Your task to perform on an android device: Go to ESPN.com Image 0: 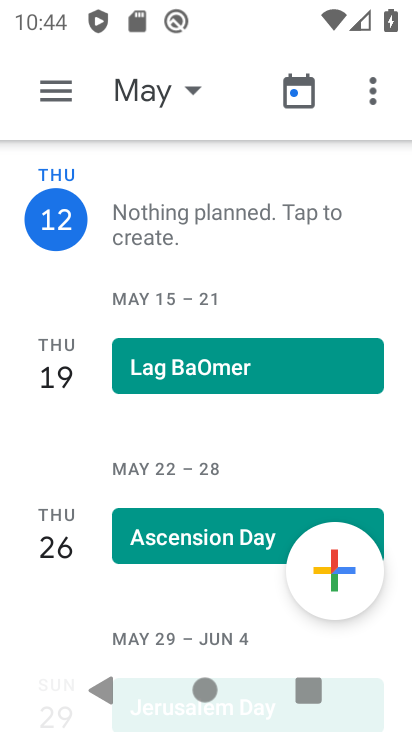
Step 0: press home button
Your task to perform on an android device: Go to ESPN.com Image 1: 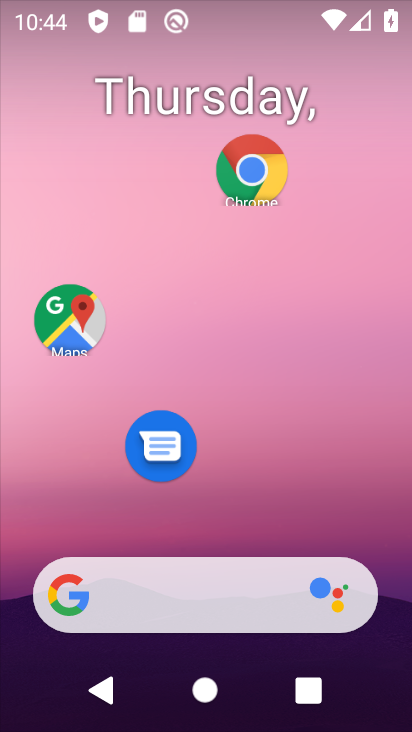
Step 1: click (258, 159)
Your task to perform on an android device: Go to ESPN.com Image 2: 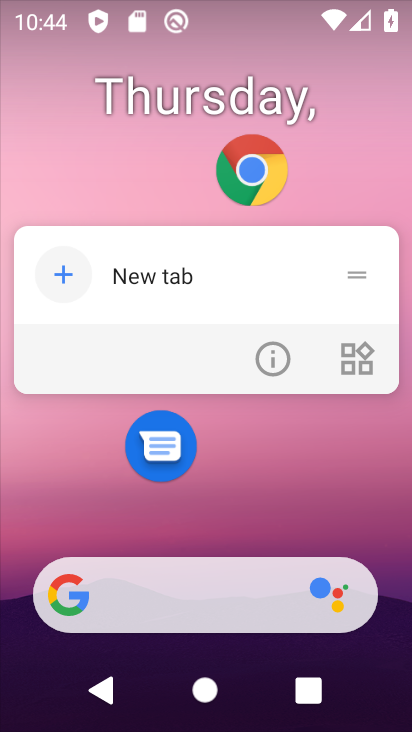
Step 2: click (242, 179)
Your task to perform on an android device: Go to ESPN.com Image 3: 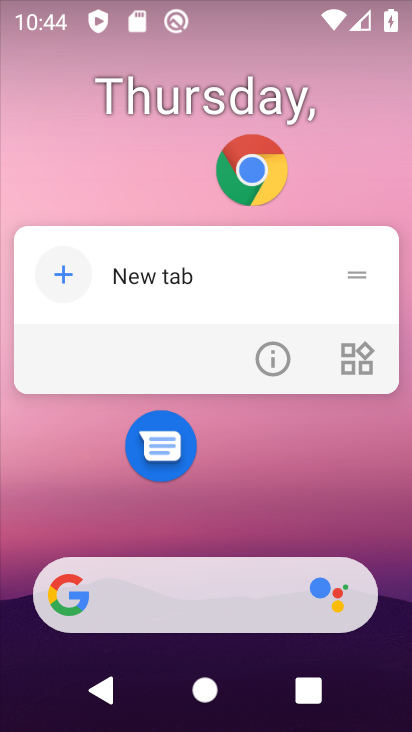
Step 3: click (252, 174)
Your task to perform on an android device: Go to ESPN.com Image 4: 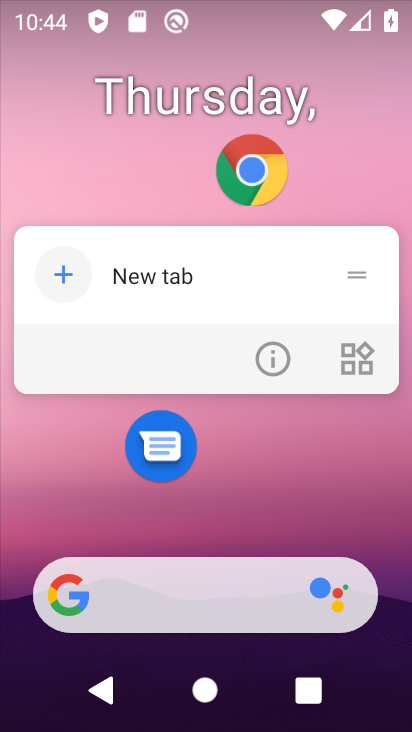
Step 4: click (257, 183)
Your task to perform on an android device: Go to ESPN.com Image 5: 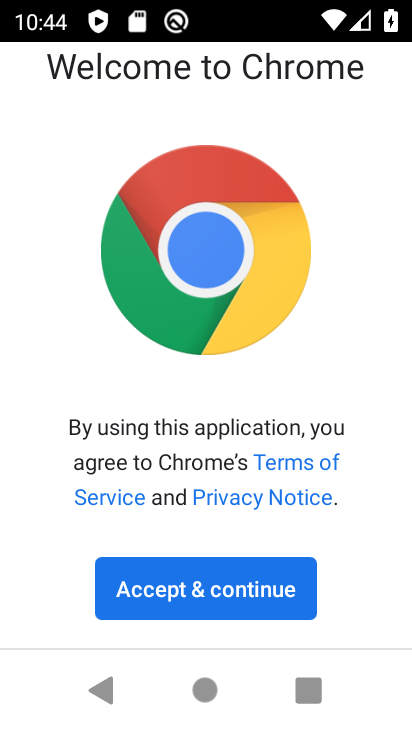
Step 5: click (257, 582)
Your task to perform on an android device: Go to ESPN.com Image 6: 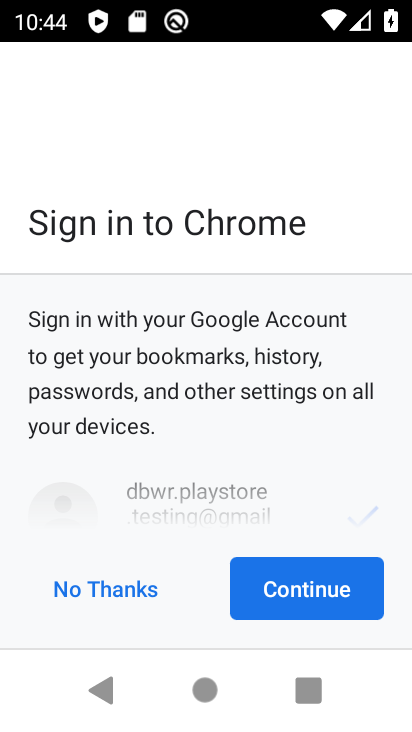
Step 6: click (276, 592)
Your task to perform on an android device: Go to ESPN.com Image 7: 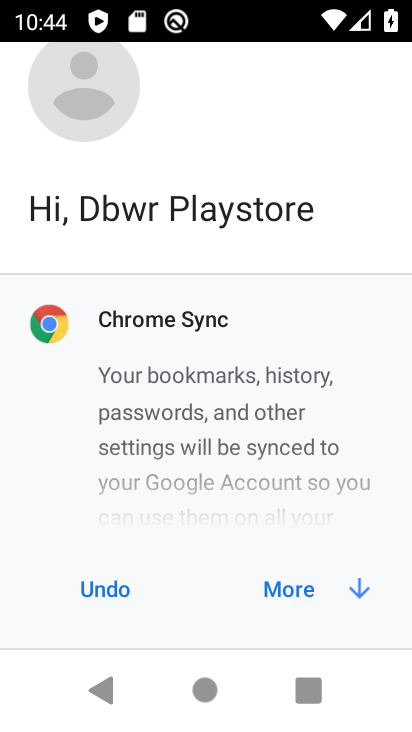
Step 7: click (276, 592)
Your task to perform on an android device: Go to ESPN.com Image 8: 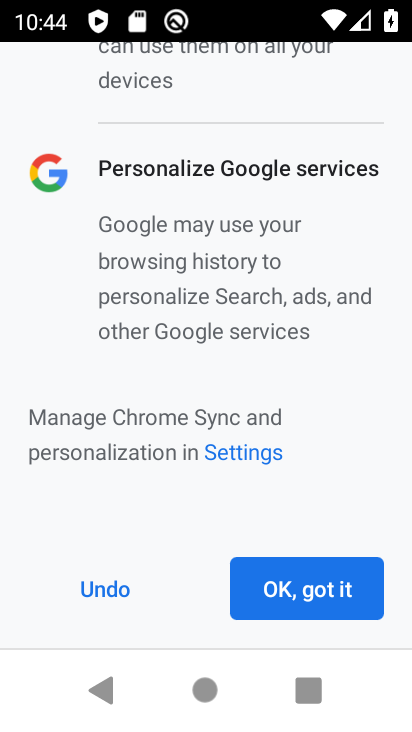
Step 8: click (276, 592)
Your task to perform on an android device: Go to ESPN.com Image 9: 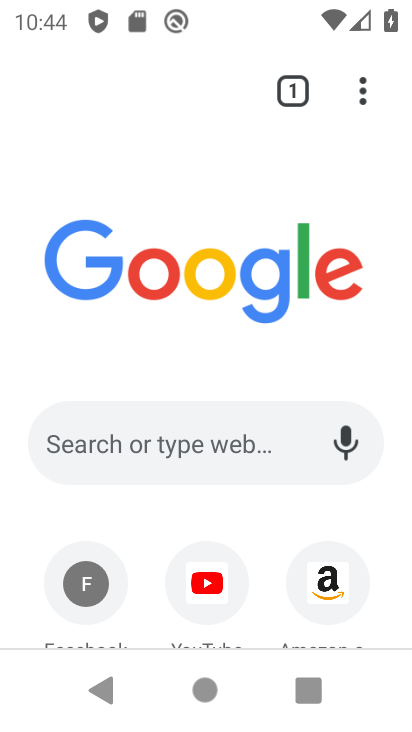
Step 9: drag from (279, 538) to (294, 84)
Your task to perform on an android device: Go to ESPN.com Image 10: 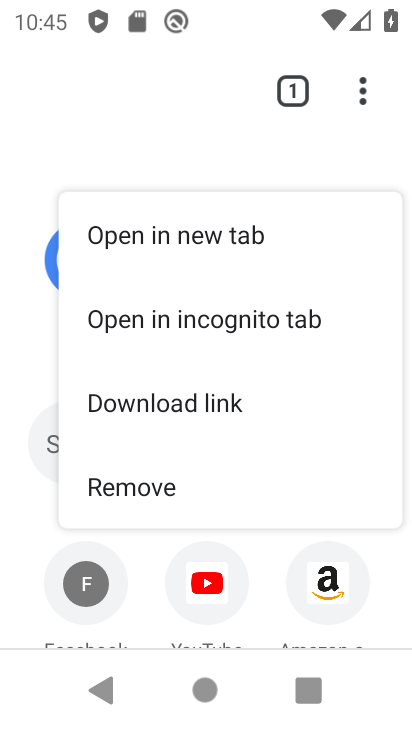
Step 10: click (250, 235)
Your task to perform on an android device: Go to ESPN.com Image 11: 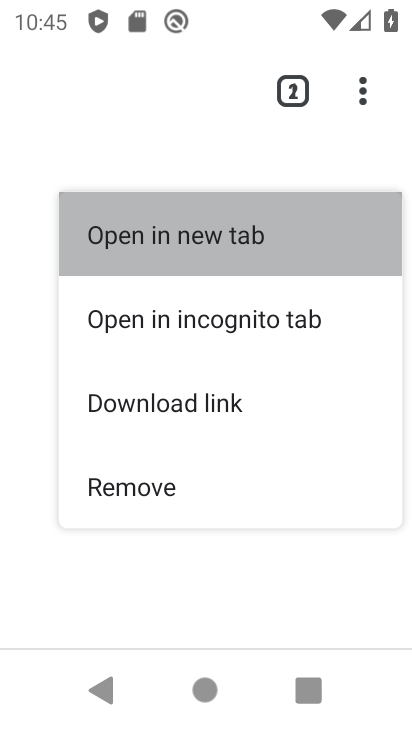
Step 11: click (36, 171)
Your task to perform on an android device: Go to ESPN.com Image 12: 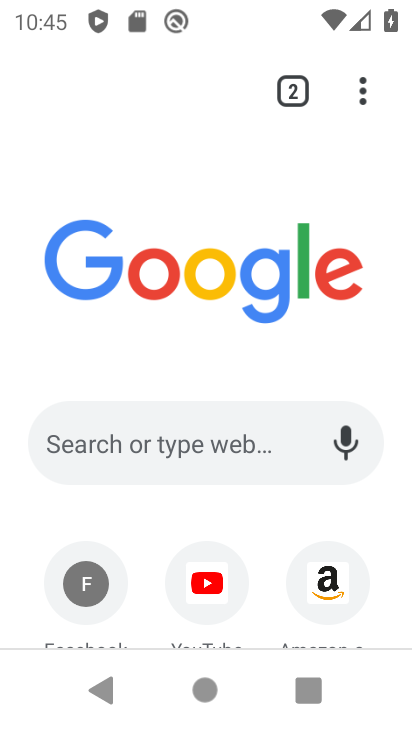
Step 12: drag from (279, 596) to (275, 154)
Your task to perform on an android device: Go to ESPN.com Image 13: 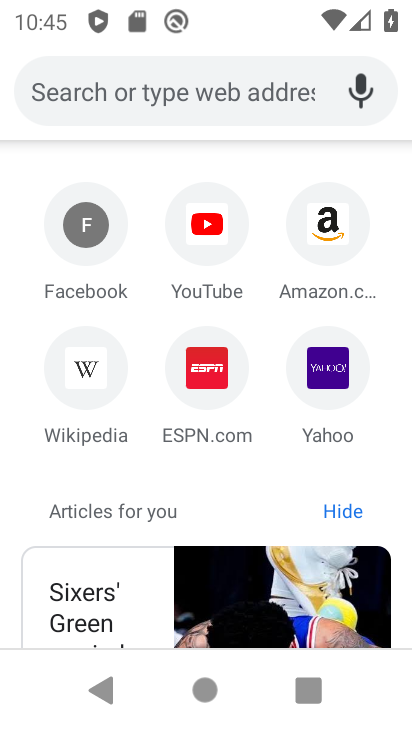
Step 13: click (207, 380)
Your task to perform on an android device: Go to ESPN.com Image 14: 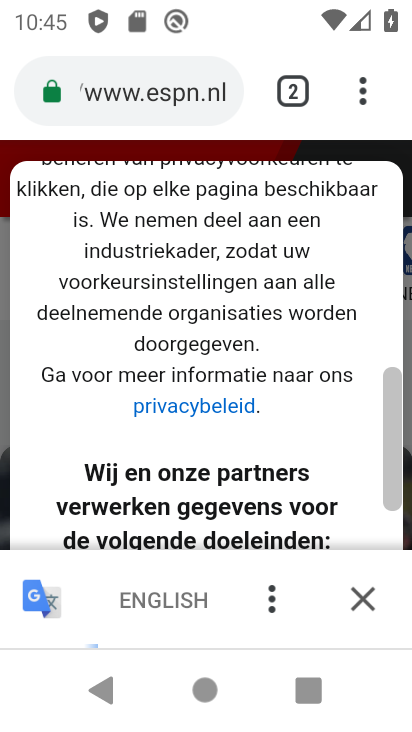
Step 14: task complete